Your task to perform on an android device: open a new tab in the chrome app Image 0: 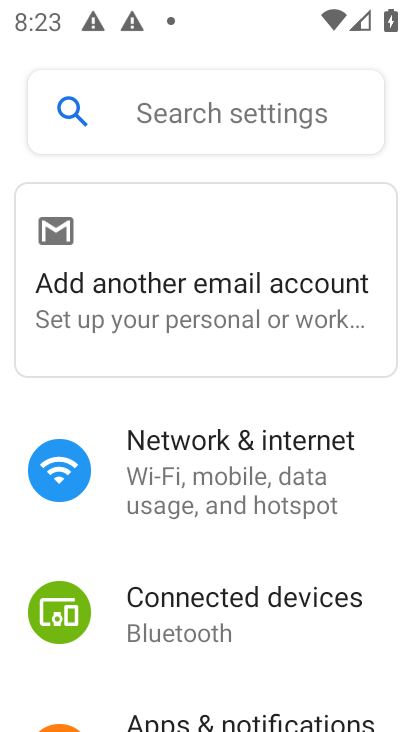
Step 0: press home button
Your task to perform on an android device: open a new tab in the chrome app Image 1: 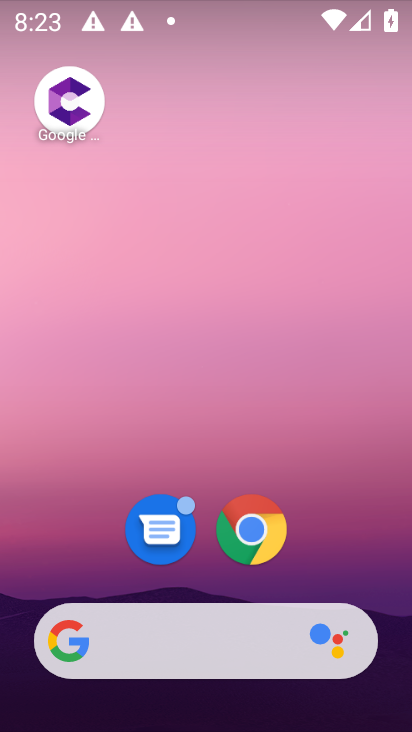
Step 1: click (250, 528)
Your task to perform on an android device: open a new tab in the chrome app Image 2: 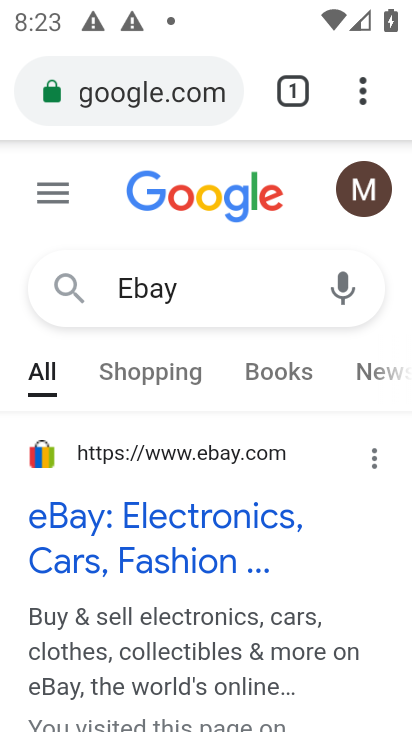
Step 2: click (380, 91)
Your task to perform on an android device: open a new tab in the chrome app Image 3: 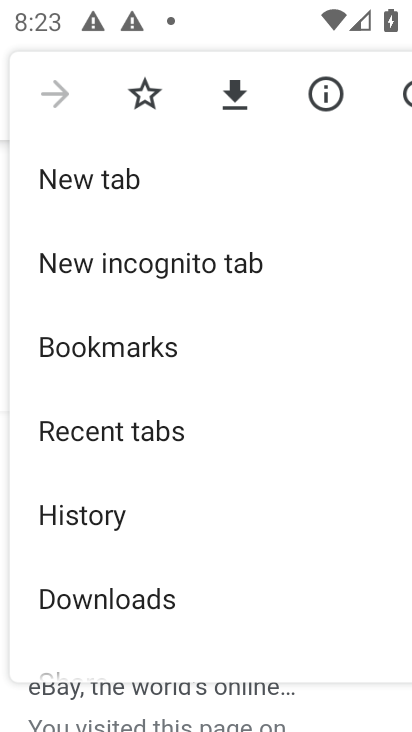
Step 3: click (118, 183)
Your task to perform on an android device: open a new tab in the chrome app Image 4: 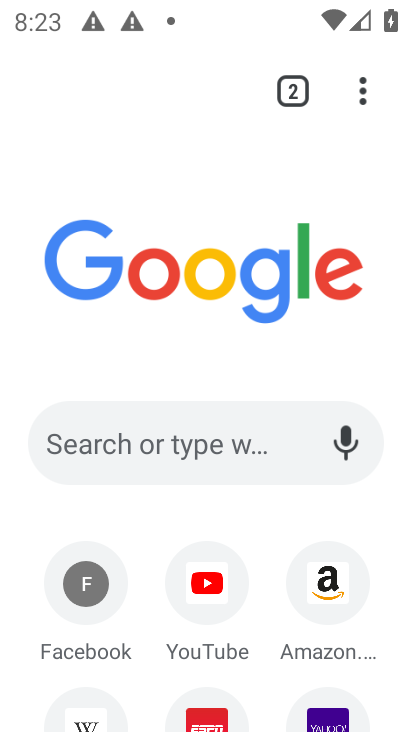
Step 4: task complete